Your task to perform on an android device: Search for seafood restaurants on Google Maps Image 0: 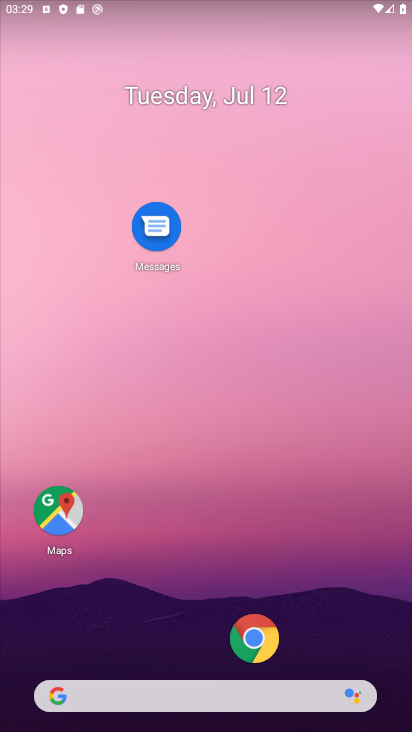
Step 0: click (59, 520)
Your task to perform on an android device: Search for seafood restaurants on Google Maps Image 1: 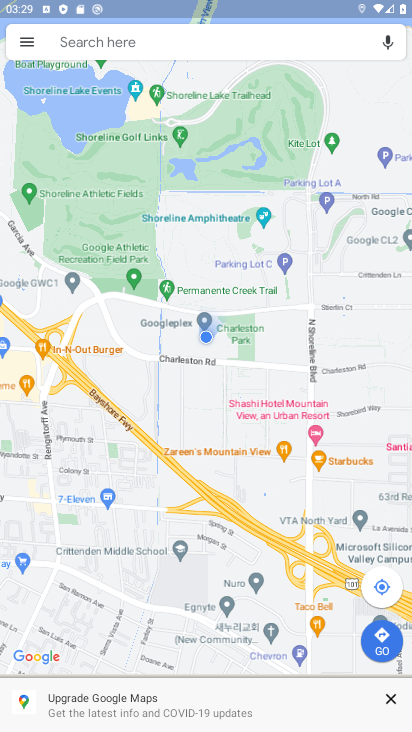
Step 1: click (57, 520)
Your task to perform on an android device: Search for seafood restaurants on Google Maps Image 2: 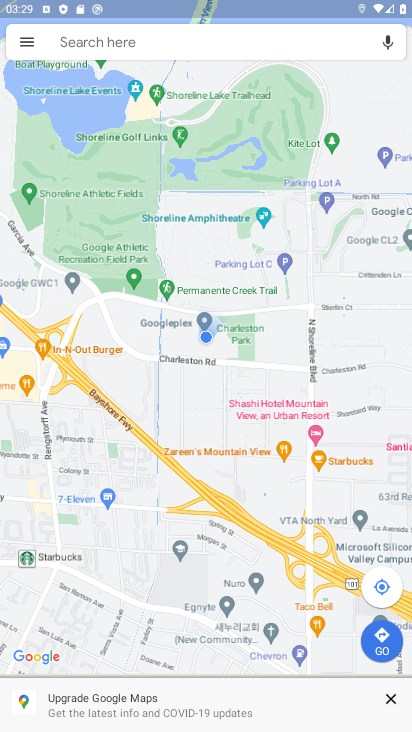
Step 2: click (204, 41)
Your task to perform on an android device: Search for seafood restaurants on Google Maps Image 3: 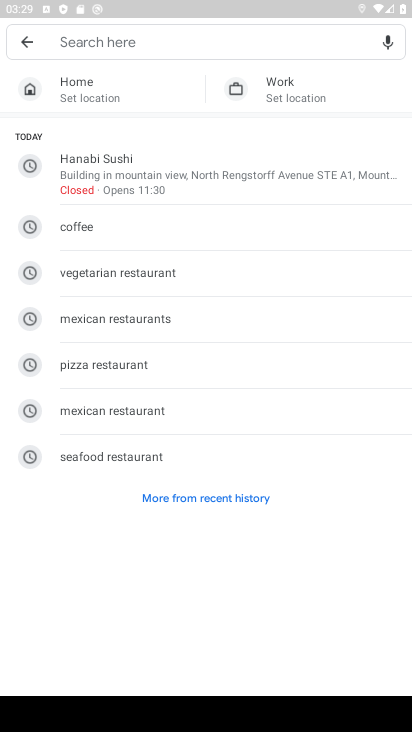
Step 3: click (103, 449)
Your task to perform on an android device: Search for seafood restaurants on Google Maps Image 4: 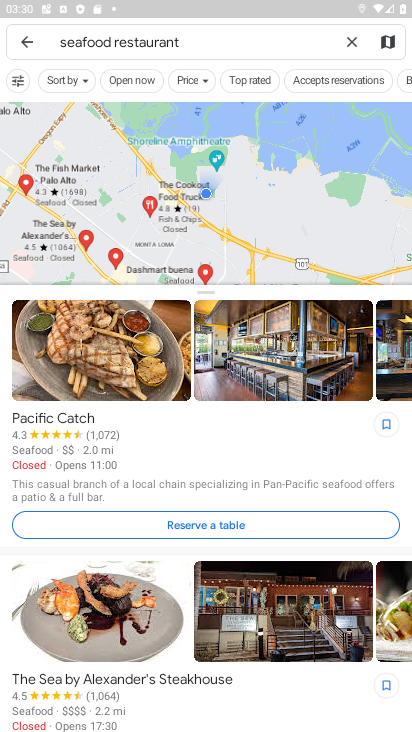
Step 4: task complete